Your task to perform on an android device: Open Android settings Image 0: 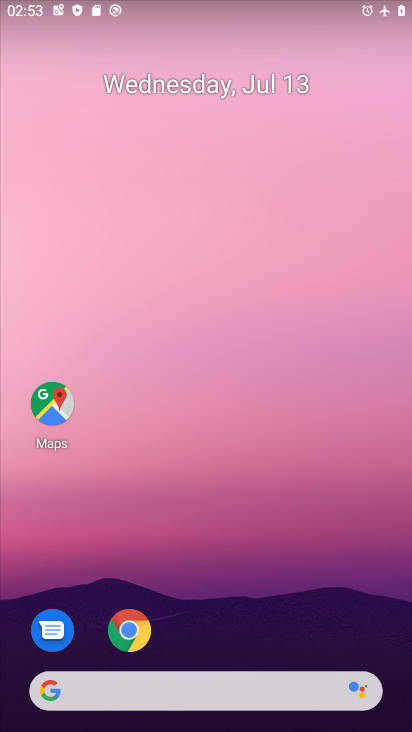
Step 0: drag from (196, 637) to (201, 198)
Your task to perform on an android device: Open Android settings Image 1: 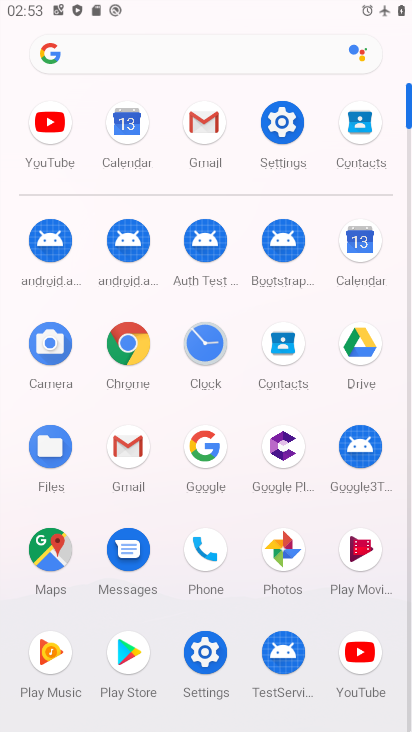
Step 1: click (262, 152)
Your task to perform on an android device: Open Android settings Image 2: 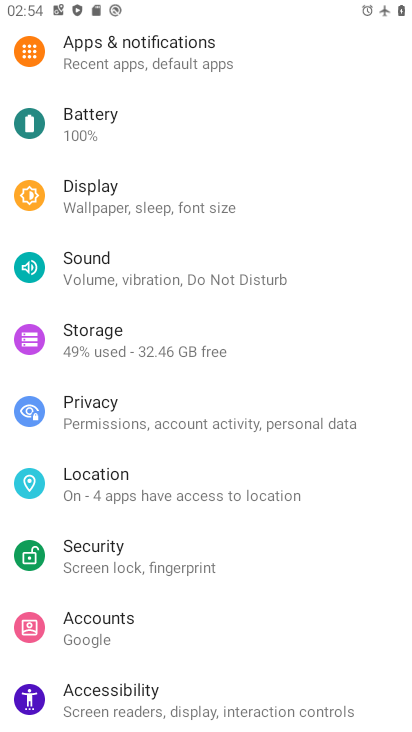
Step 2: task complete